Your task to perform on an android device: Show me popular games on the Play Store Image 0: 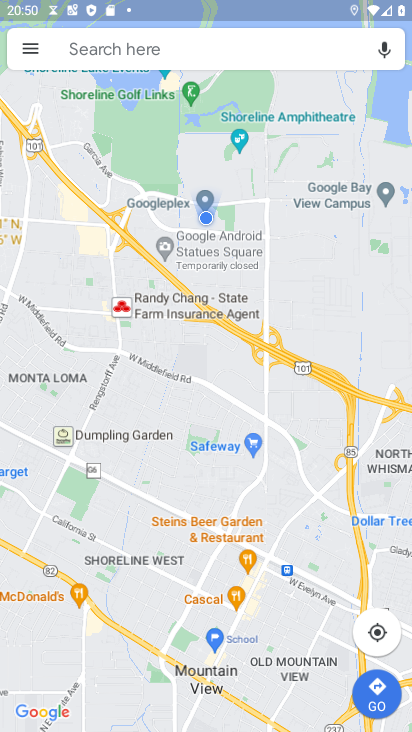
Step 0: press home button
Your task to perform on an android device: Show me popular games on the Play Store Image 1: 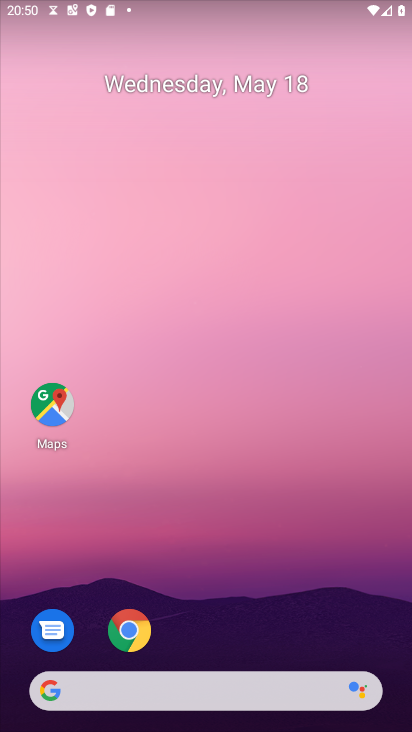
Step 1: drag from (203, 694) to (371, 141)
Your task to perform on an android device: Show me popular games on the Play Store Image 2: 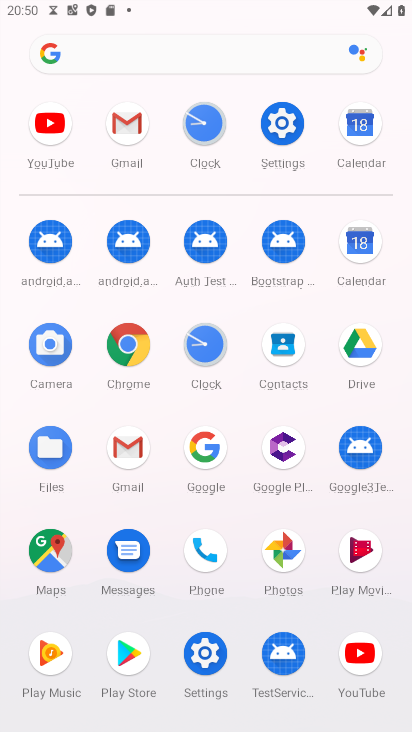
Step 2: click (126, 661)
Your task to perform on an android device: Show me popular games on the Play Store Image 3: 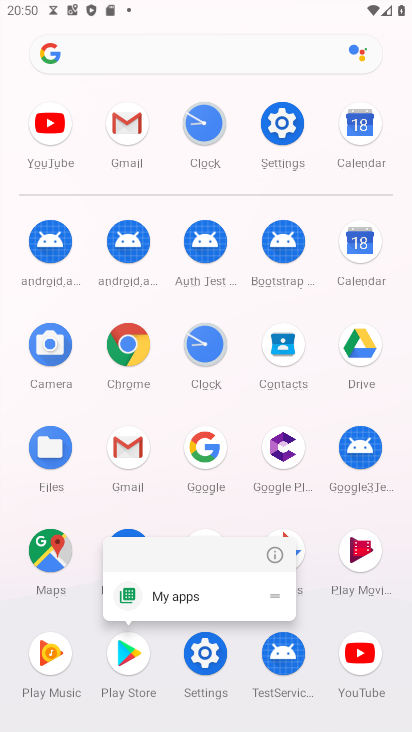
Step 3: click (122, 655)
Your task to perform on an android device: Show me popular games on the Play Store Image 4: 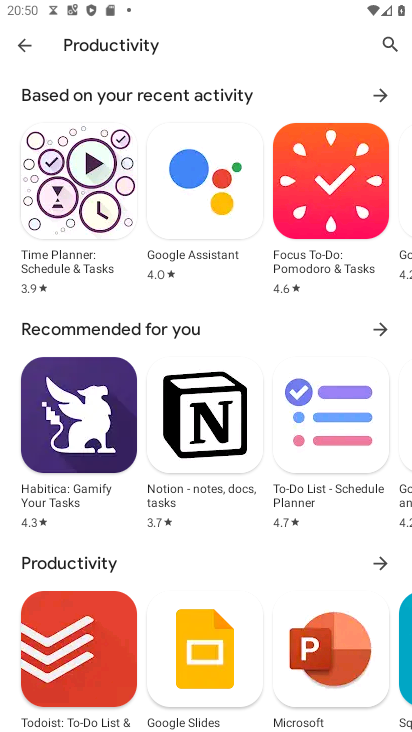
Step 4: click (29, 40)
Your task to perform on an android device: Show me popular games on the Play Store Image 5: 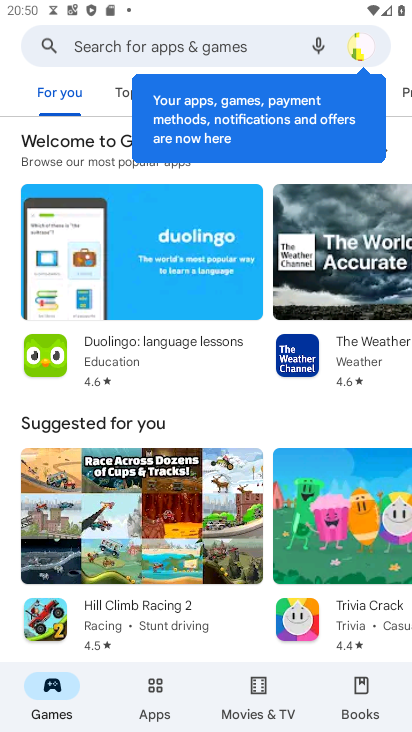
Step 5: drag from (196, 510) to (327, 203)
Your task to perform on an android device: Show me popular games on the Play Store Image 6: 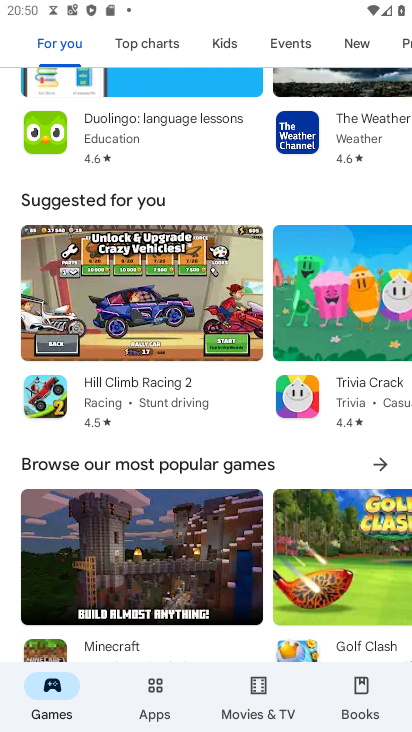
Step 6: click (224, 464)
Your task to perform on an android device: Show me popular games on the Play Store Image 7: 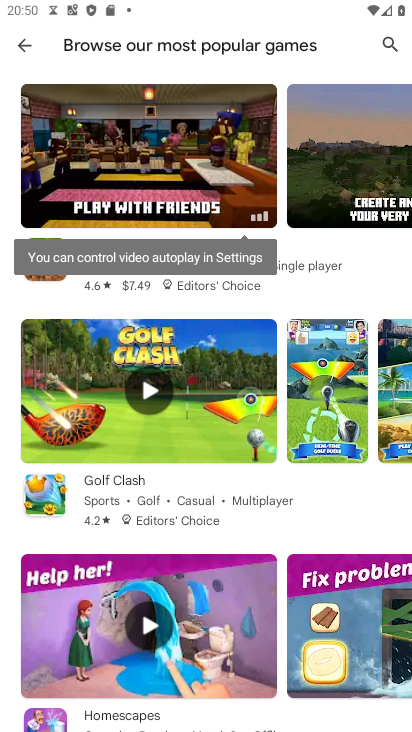
Step 7: task complete